Your task to perform on an android device: change your default location settings in chrome Image 0: 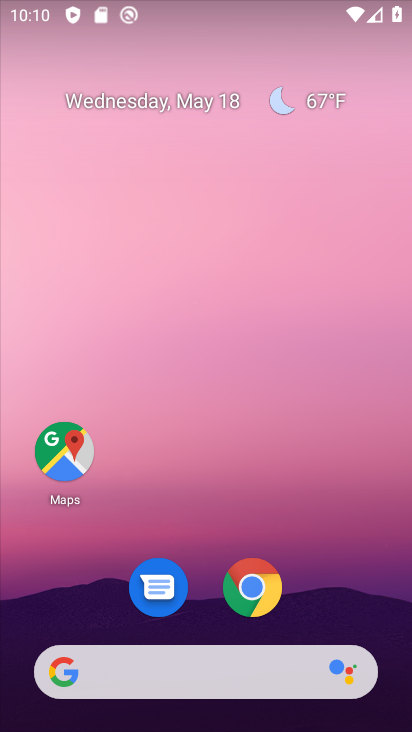
Step 0: click (252, 587)
Your task to perform on an android device: change your default location settings in chrome Image 1: 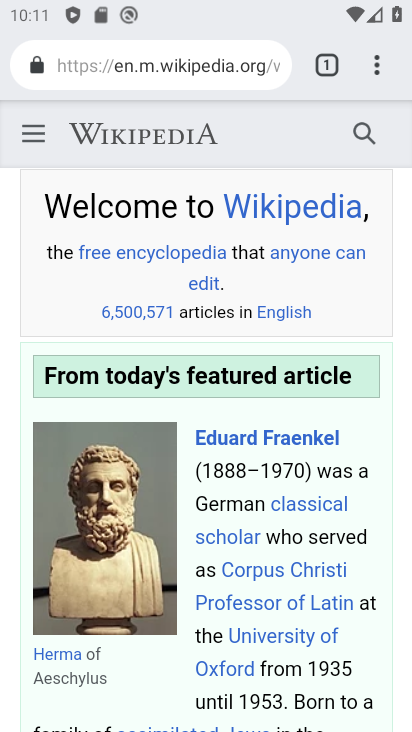
Step 1: click (367, 66)
Your task to perform on an android device: change your default location settings in chrome Image 2: 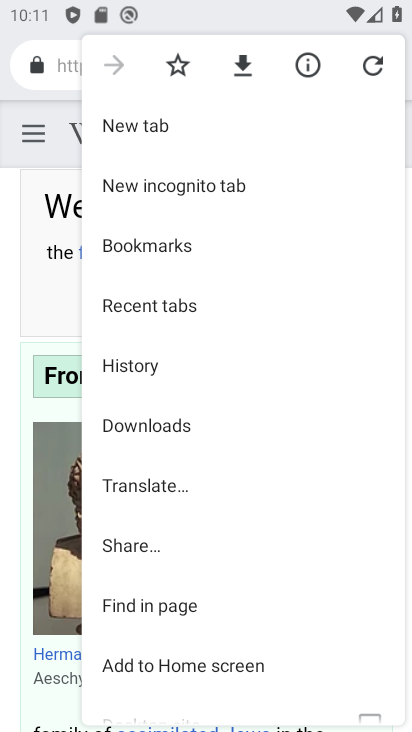
Step 2: drag from (306, 582) to (280, 274)
Your task to perform on an android device: change your default location settings in chrome Image 3: 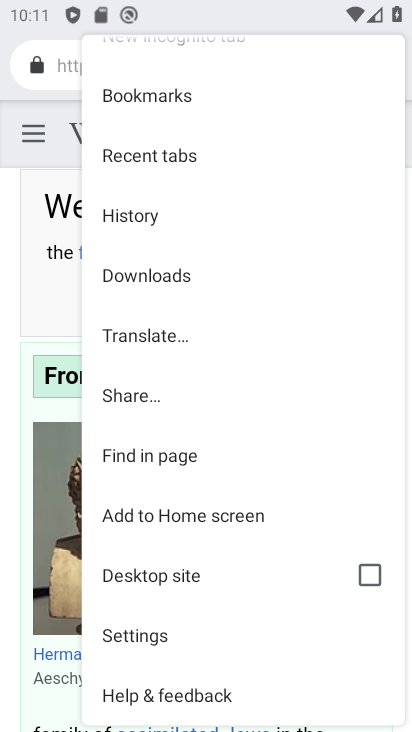
Step 3: click (158, 623)
Your task to perform on an android device: change your default location settings in chrome Image 4: 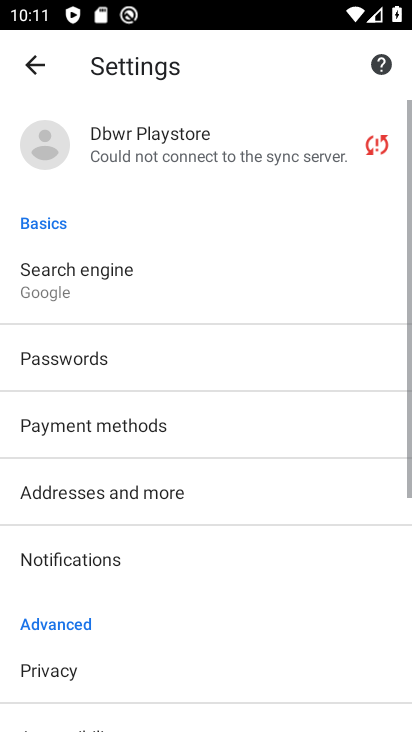
Step 4: drag from (159, 534) to (169, 216)
Your task to perform on an android device: change your default location settings in chrome Image 5: 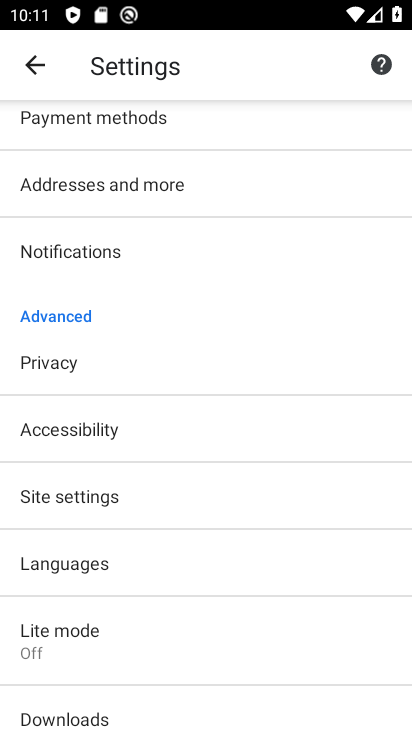
Step 5: drag from (183, 596) to (181, 351)
Your task to perform on an android device: change your default location settings in chrome Image 6: 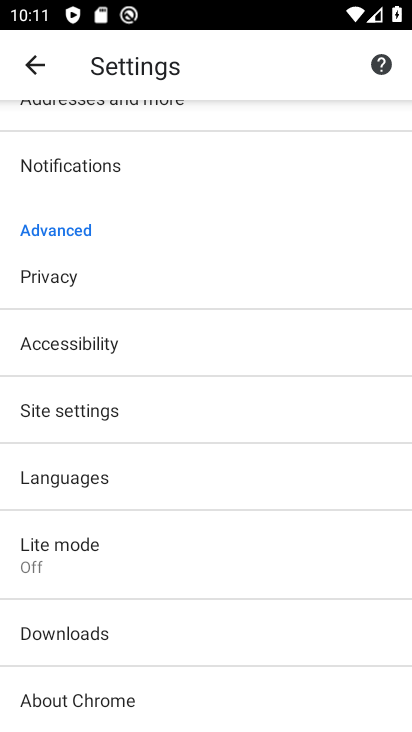
Step 6: click (132, 271)
Your task to perform on an android device: change your default location settings in chrome Image 7: 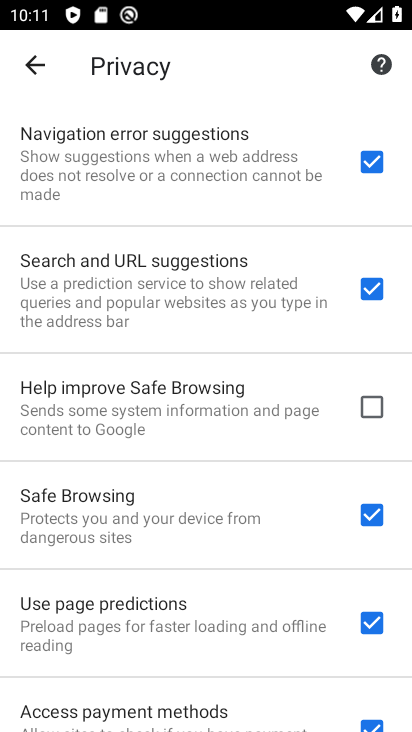
Step 7: drag from (127, 539) to (187, 139)
Your task to perform on an android device: change your default location settings in chrome Image 8: 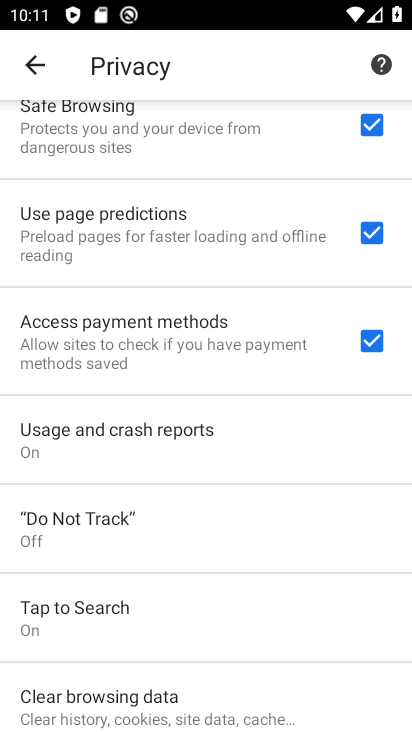
Step 8: drag from (140, 592) to (169, 305)
Your task to perform on an android device: change your default location settings in chrome Image 9: 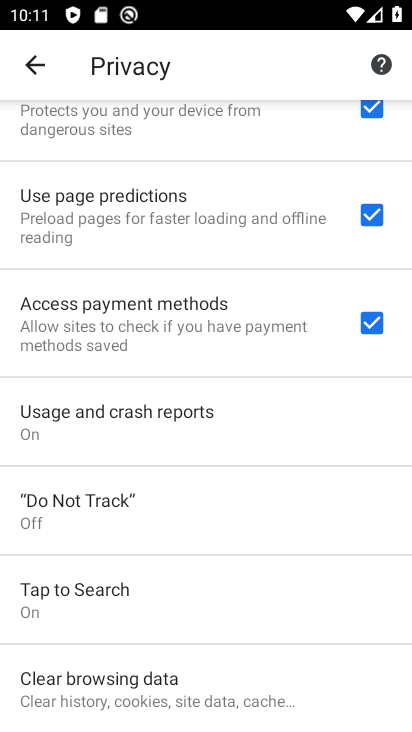
Step 9: press back button
Your task to perform on an android device: change your default location settings in chrome Image 10: 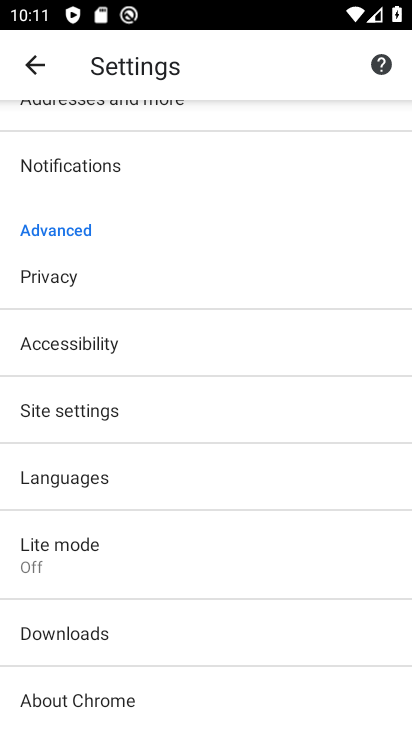
Step 10: click (81, 400)
Your task to perform on an android device: change your default location settings in chrome Image 11: 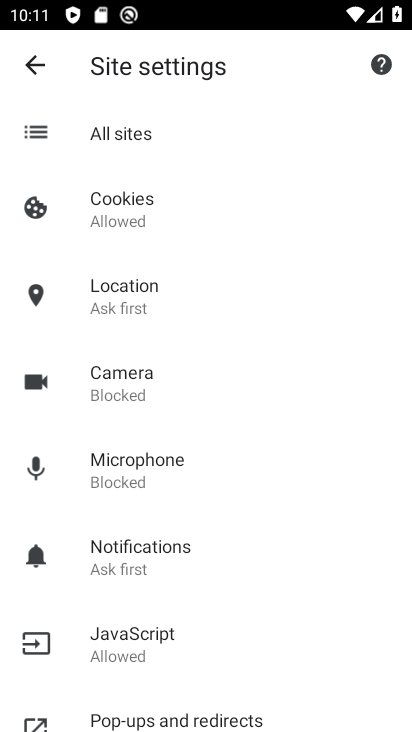
Step 11: drag from (220, 499) to (256, 267)
Your task to perform on an android device: change your default location settings in chrome Image 12: 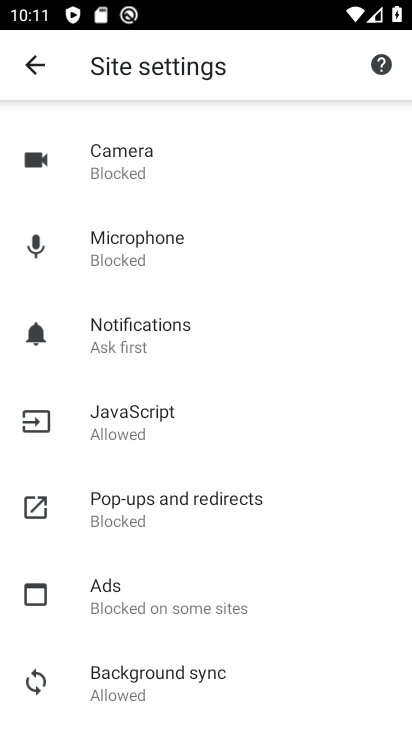
Step 12: drag from (262, 436) to (275, 361)
Your task to perform on an android device: change your default location settings in chrome Image 13: 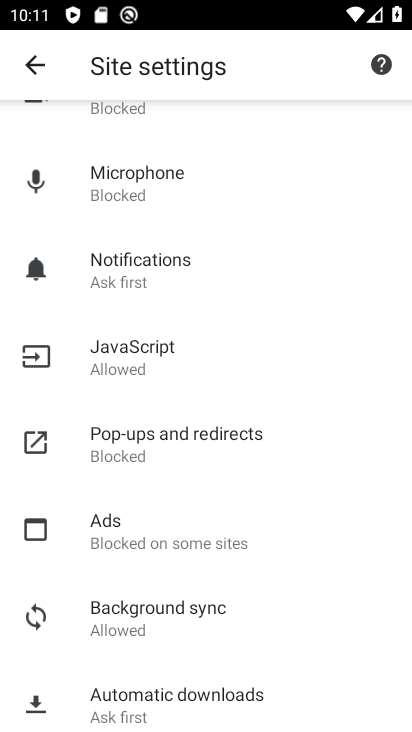
Step 13: drag from (280, 553) to (304, 305)
Your task to perform on an android device: change your default location settings in chrome Image 14: 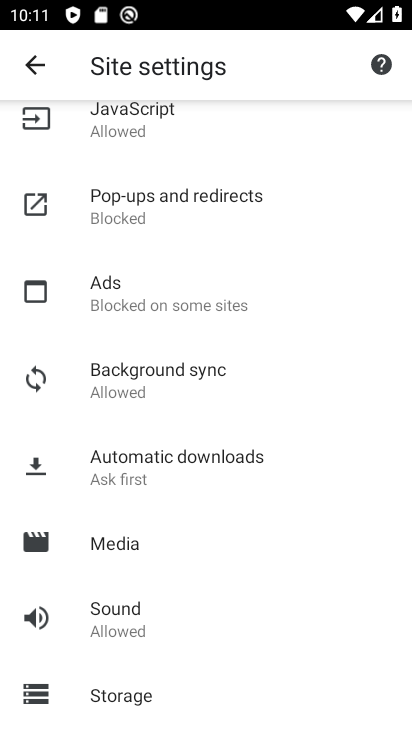
Step 14: drag from (257, 472) to (286, 153)
Your task to perform on an android device: change your default location settings in chrome Image 15: 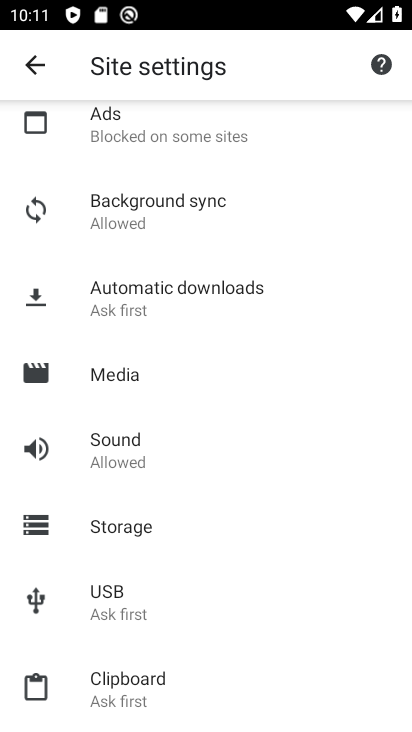
Step 15: press back button
Your task to perform on an android device: change your default location settings in chrome Image 16: 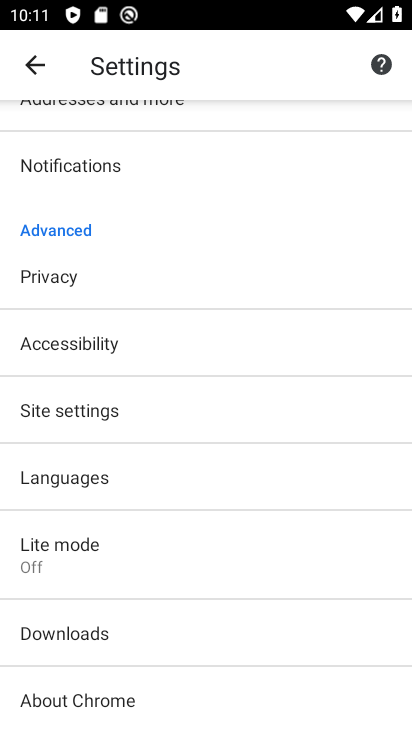
Step 16: drag from (202, 601) to (202, 292)
Your task to perform on an android device: change your default location settings in chrome Image 17: 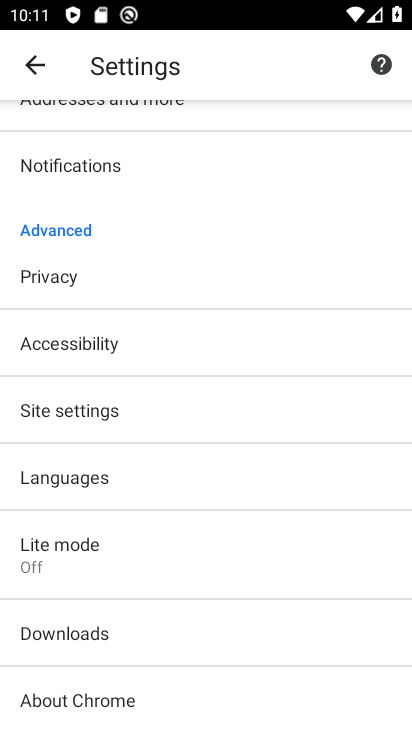
Step 17: click (142, 706)
Your task to perform on an android device: change your default location settings in chrome Image 18: 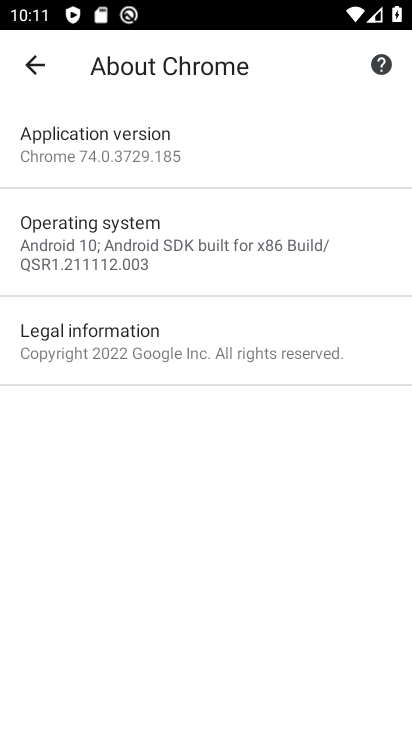
Step 18: press back button
Your task to perform on an android device: change your default location settings in chrome Image 19: 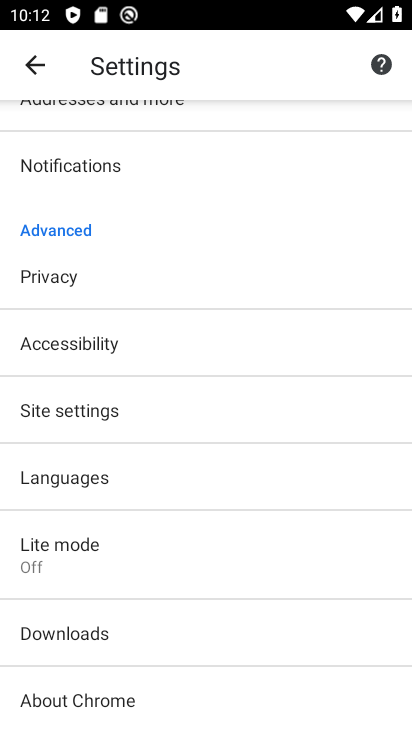
Step 19: click (224, 269)
Your task to perform on an android device: change your default location settings in chrome Image 20: 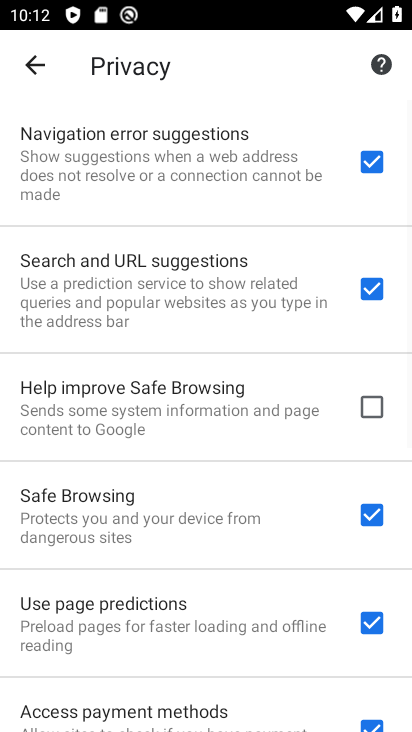
Step 20: task complete